Your task to perform on an android device: Open the web browser Image 0: 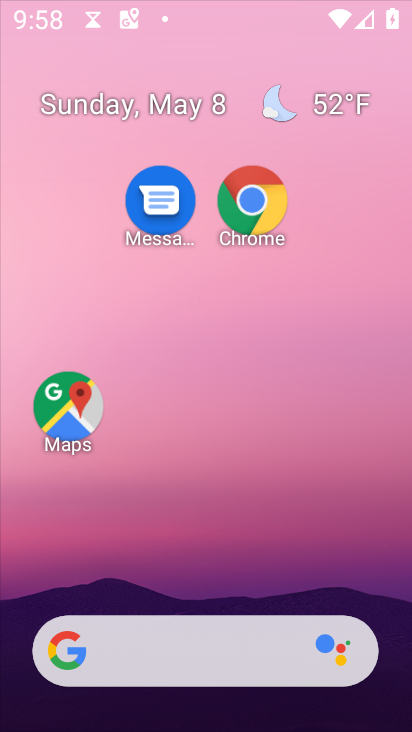
Step 0: drag from (202, 616) to (261, 59)
Your task to perform on an android device: Open the web browser Image 1: 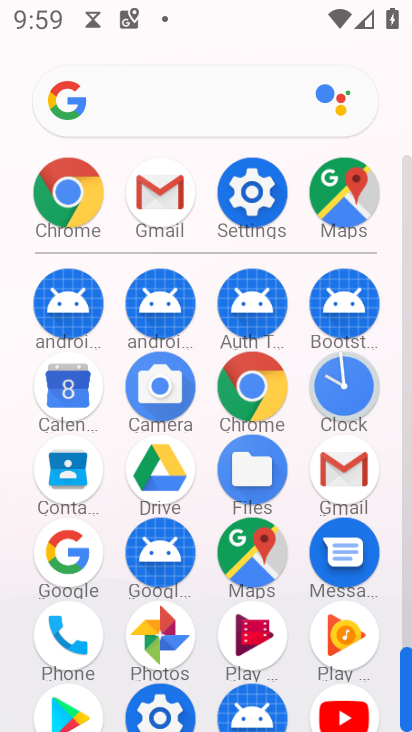
Step 1: drag from (196, 620) to (113, 67)
Your task to perform on an android device: Open the web browser Image 2: 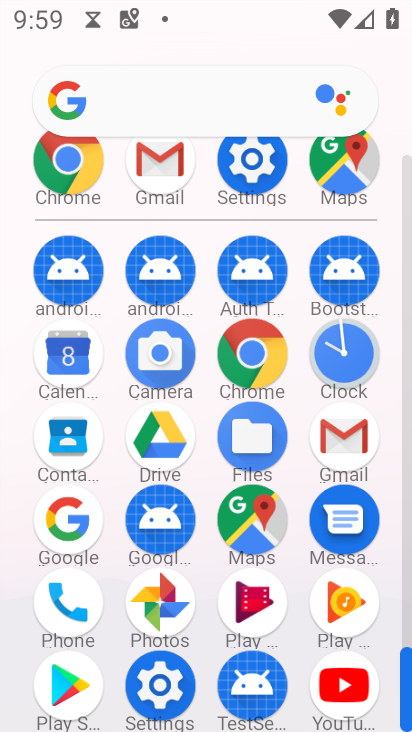
Step 2: click (64, 534)
Your task to perform on an android device: Open the web browser Image 3: 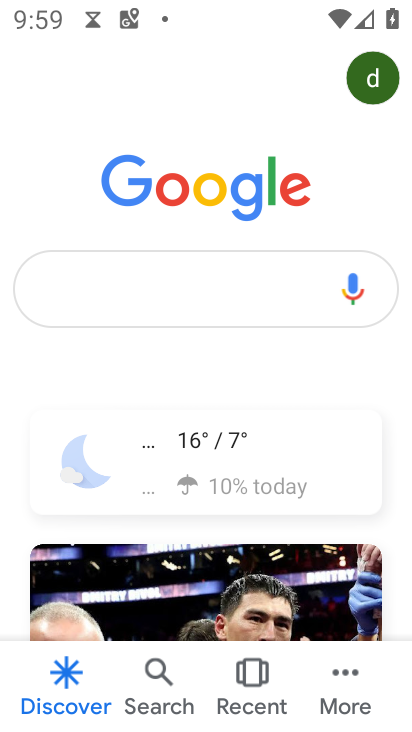
Step 3: click (213, 307)
Your task to perform on an android device: Open the web browser Image 4: 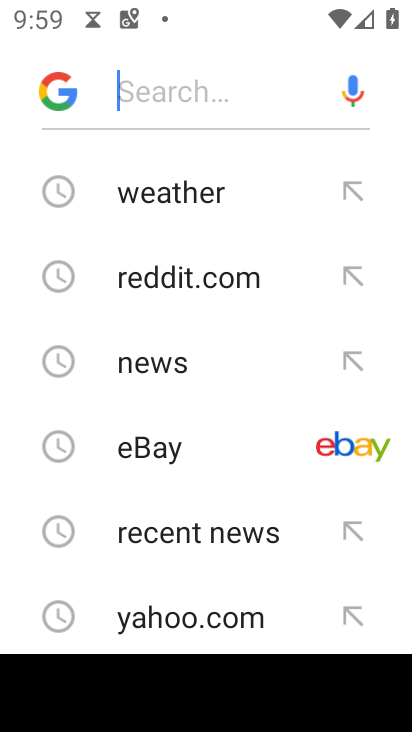
Step 4: task complete